Your task to perform on an android device: Open CNN.com Image 0: 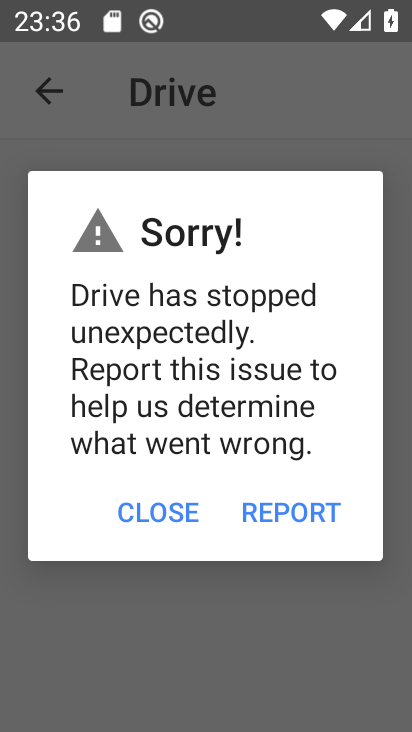
Step 0: press home button
Your task to perform on an android device: Open CNN.com Image 1: 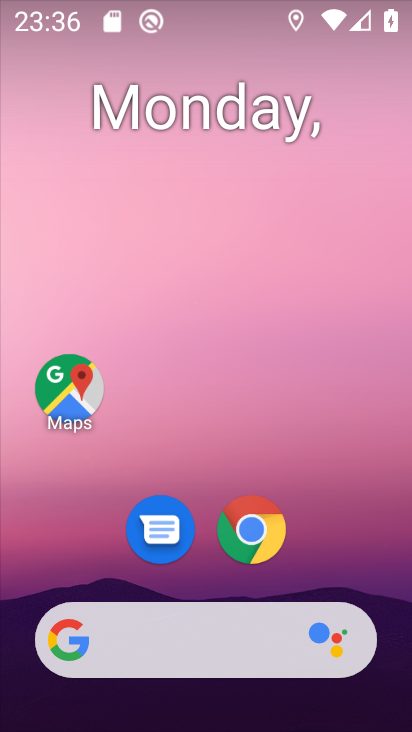
Step 1: click (256, 525)
Your task to perform on an android device: Open CNN.com Image 2: 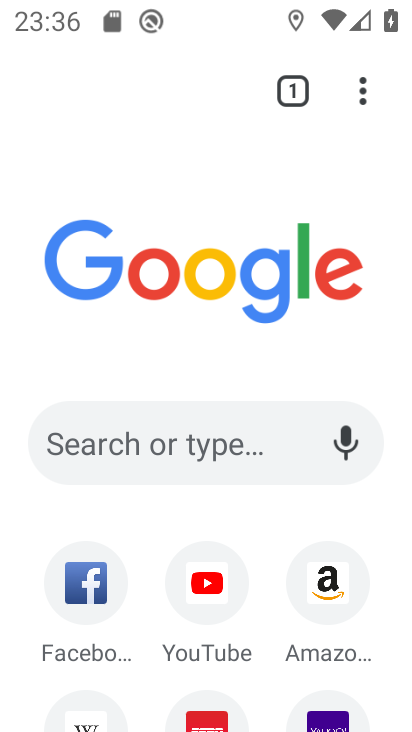
Step 2: click (238, 435)
Your task to perform on an android device: Open CNN.com Image 3: 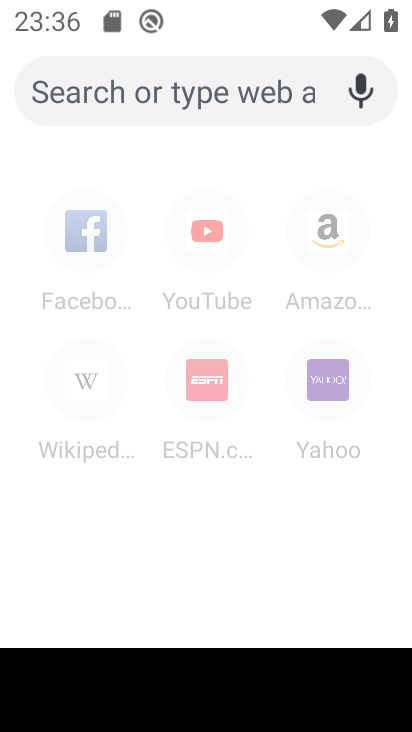
Step 3: type "CNN.com"
Your task to perform on an android device: Open CNN.com Image 4: 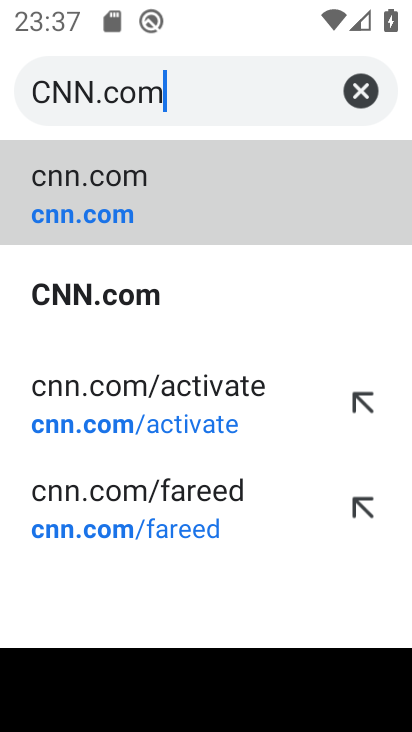
Step 4: click (76, 202)
Your task to perform on an android device: Open CNN.com Image 5: 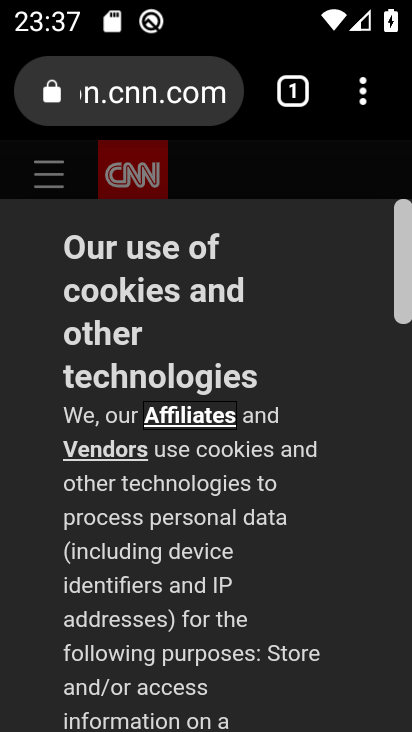
Step 5: task complete